Your task to perform on an android device: create a new album in the google photos Image 0: 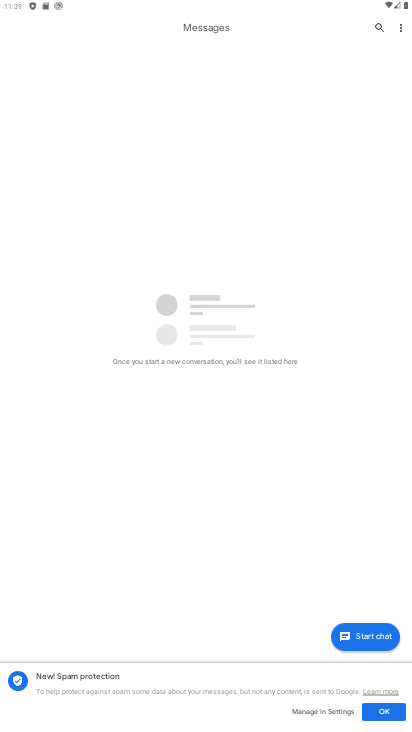
Step 0: press home button
Your task to perform on an android device: create a new album in the google photos Image 1: 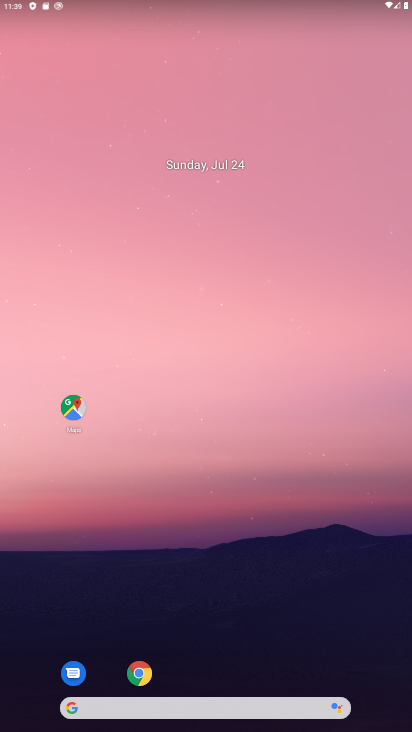
Step 1: drag from (200, 695) to (289, 149)
Your task to perform on an android device: create a new album in the google photos Image 2: 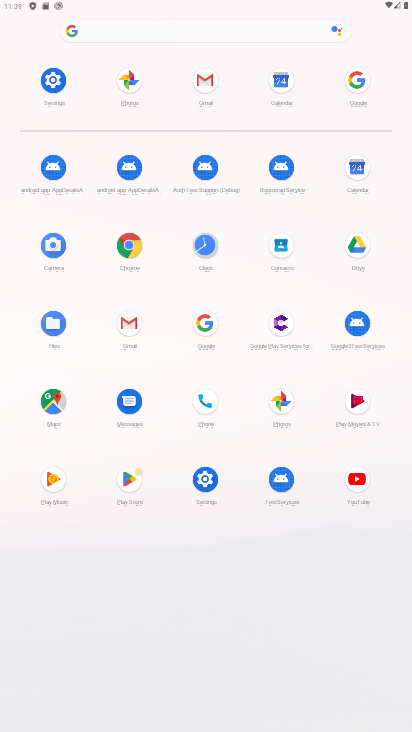
Step 2: click (282, 400)
Your task to perform on an android device: create a new album in the google photos Image 3: 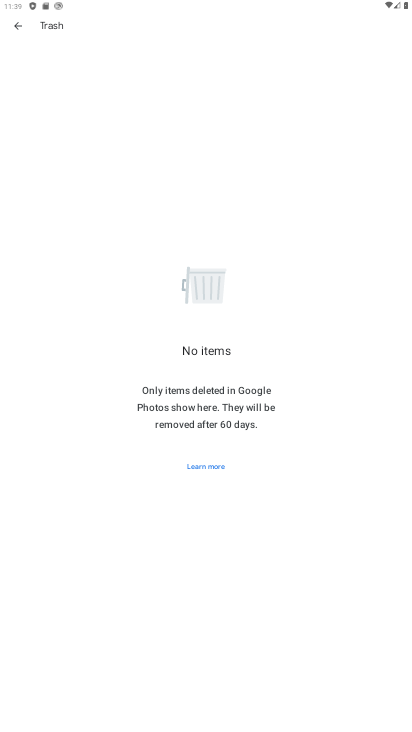
Step 3: press back button
Your task to perform on an android device: create a new album in the google photos Image 4: 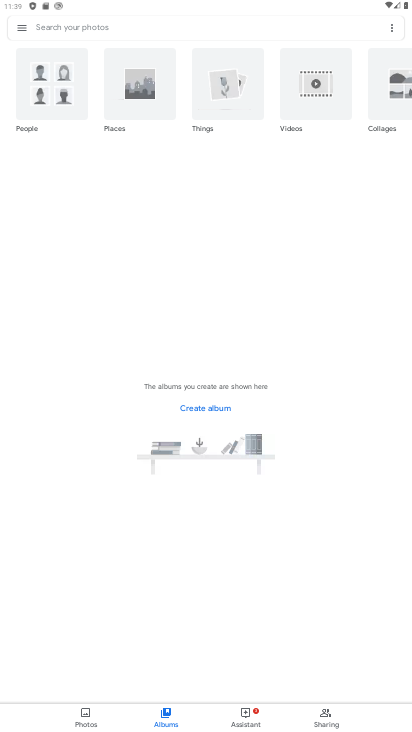
Step 4: click (390, 27)
Your task to perform on an android device: create a new album in the google photos Image 5: 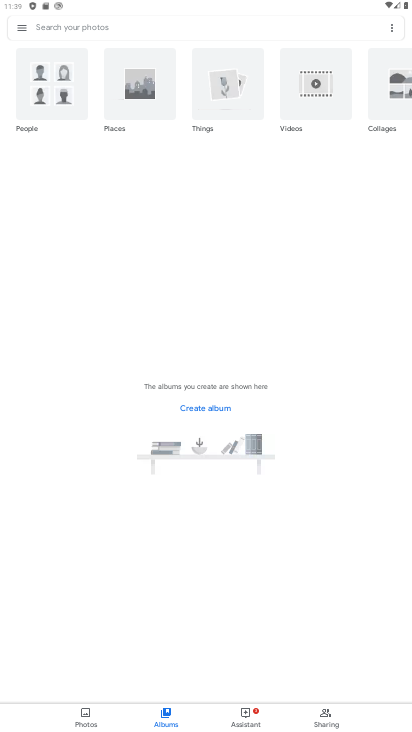
Step 5: click (392, 30)
Your task to perform on an android device: create a new album in the google photos Image 6: 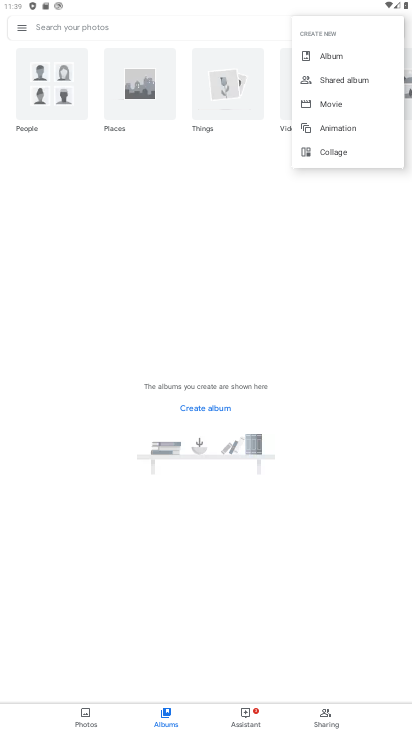
Step 6: click (341, 58)
Your task to perform on an android device: create a new album in the google photos Image 7: 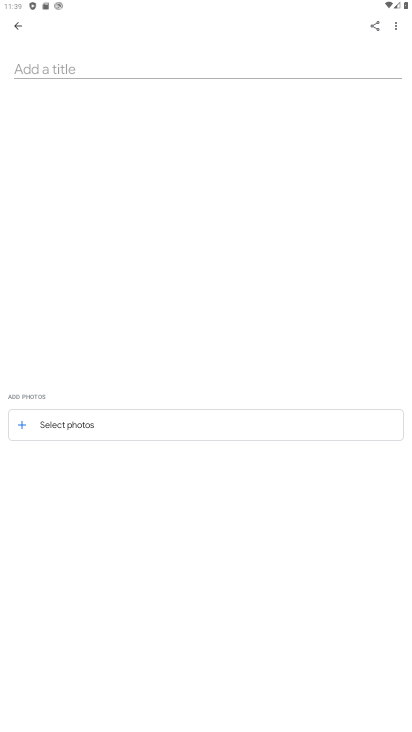
Step 7: click (251, 72)
Your task to perform on an android device: create a new album in the google photos Image 8: 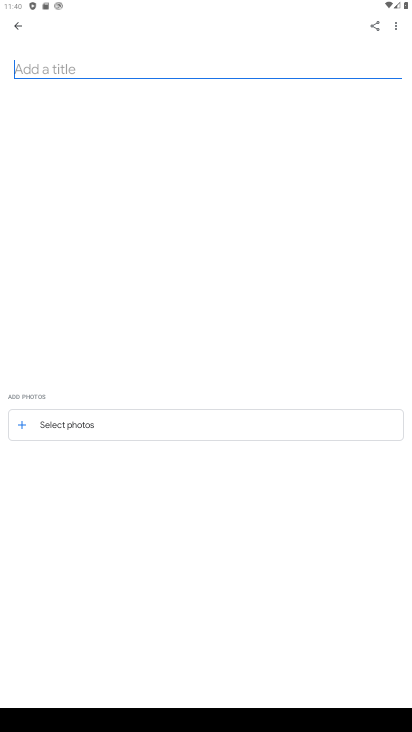
Step 8: type "gg"
Your task to perform on an android device: create a new album in the google photos Image 9: 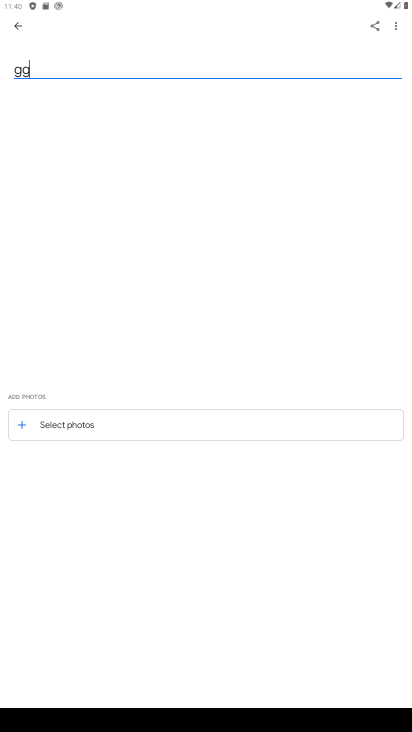
Step 9: click (22, 428)
Your task to perform on an android device: create a new album in the google photos Image 10: 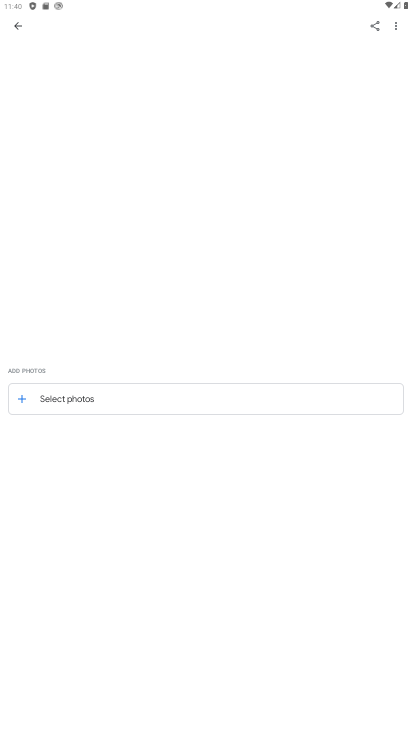
Step 10: click (28, 397)
Your task to perform on an android device: create a new album in the google photos Image 11: 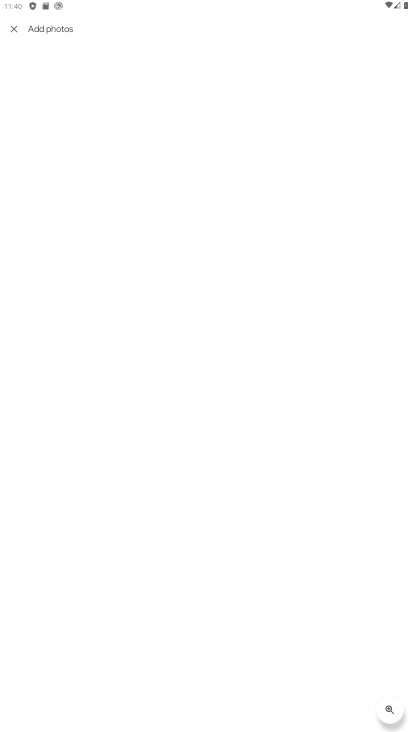
Step 11: task complete